Your task to perform on an android device: turn smart compose on in the gmail app Image 0: 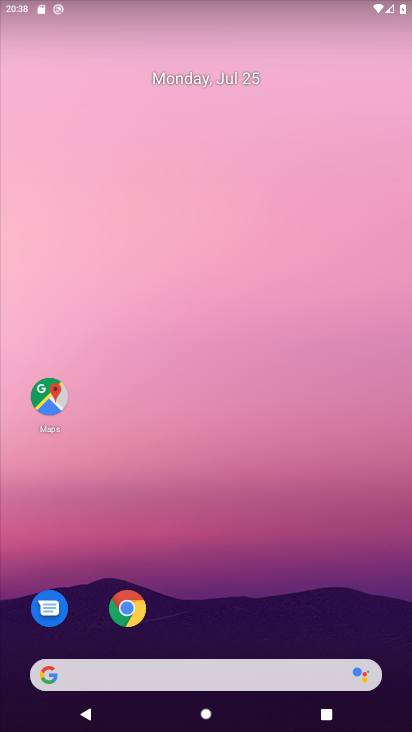
Step 0: drag from (327, 608) to (327, 57)
Your task to perform on an android device: turn smart compose on in the gmail app Image 1: 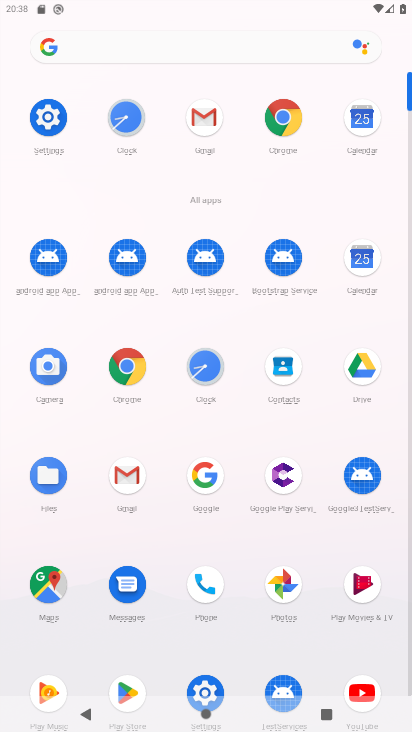
Step 1: click (210, 121)
Your task to perform on an android device: turn smart compose on in the gmail app Image 2: 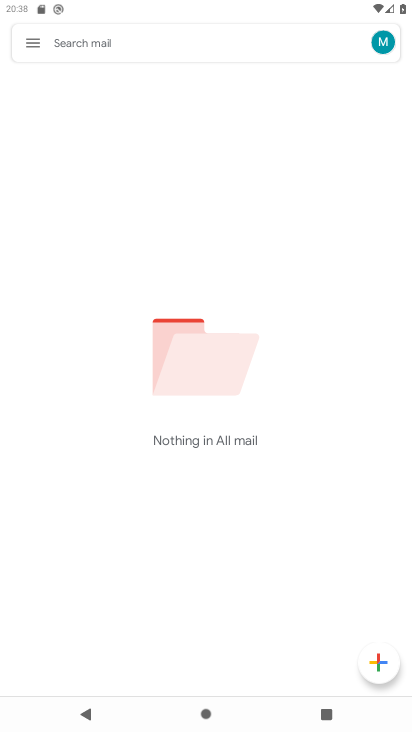
Step 2: click (30, 50)
Your task to perform on an android device: turn smart compose on in the gmail app Image 3: 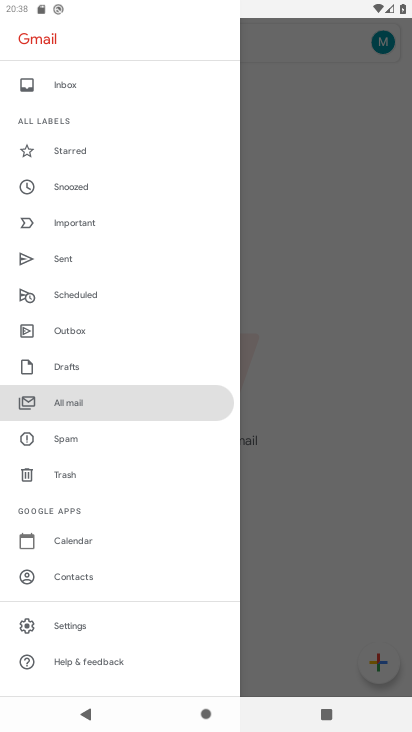
Step 3: click (68, 627)
Your task to perform on an android device: turn smart compose on in the gmail app Image 4: 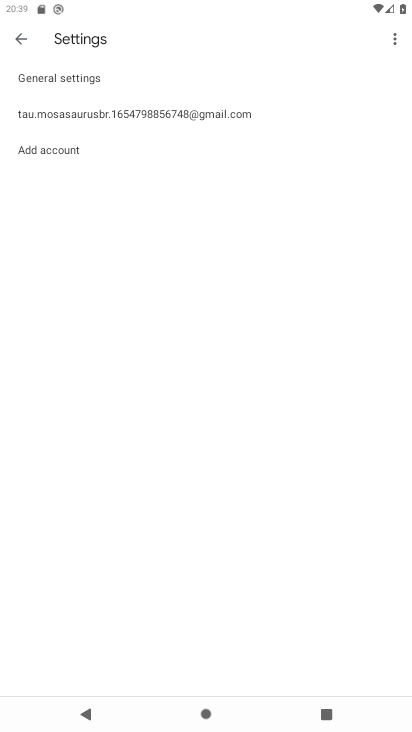
Step 4: click (166, 119)
Your task to perform on an android device: turn smart compose on in the gmail app Image 5: 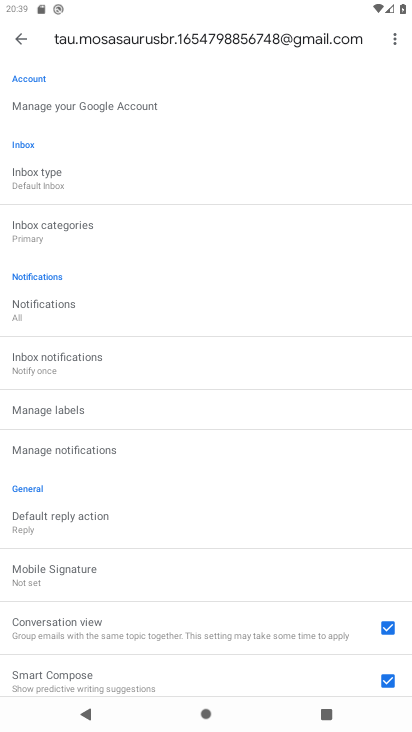
Step 5: task complete